Your task to perform on an android device: uninstall "ColorNote Notepad Notes" Image 0: 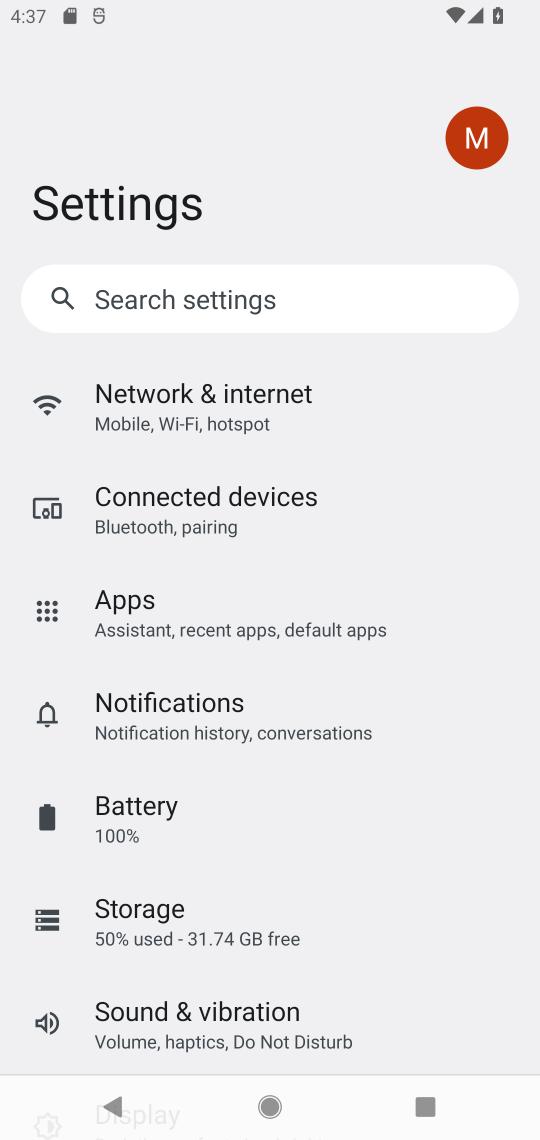
Step 0: press home button
Your task to perform on an android device: uninstall "ColorNote Notepad Notes" Image 1: 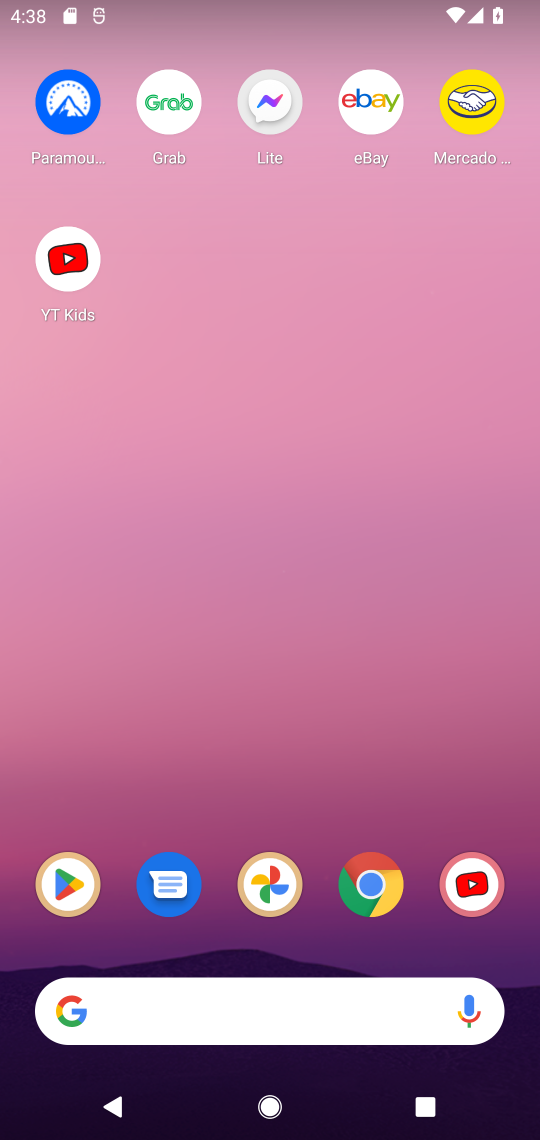
Step 1: click (69, 899)
Your task to perform on an android device: uninstall "ColorNote Notepad Notes" Image 2: 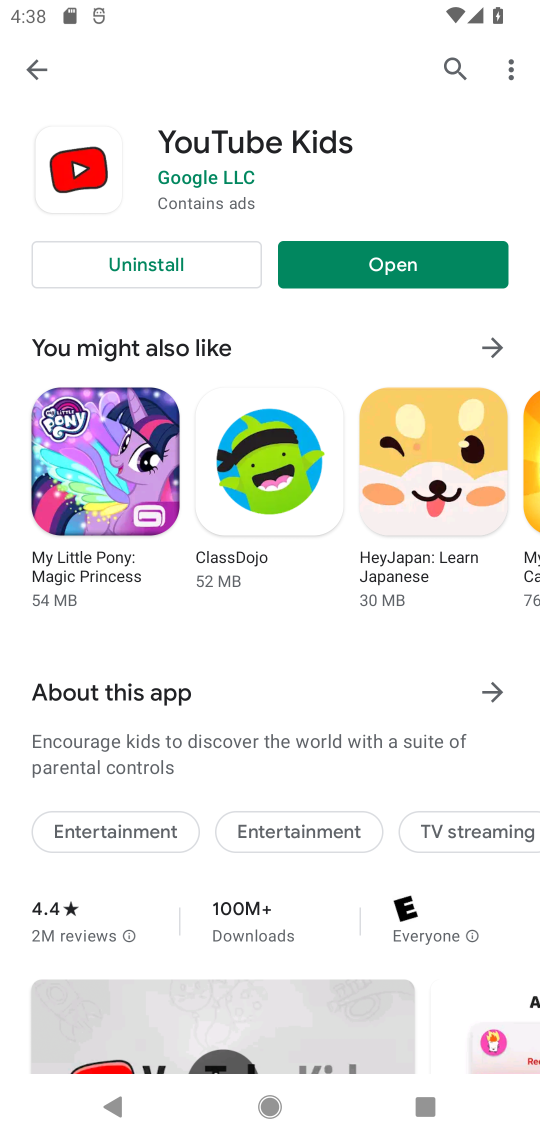
Step 2: click (439, 53)
Your task to perform on an android device: uninstall "ColorNote Notepad Notes" Image 3: 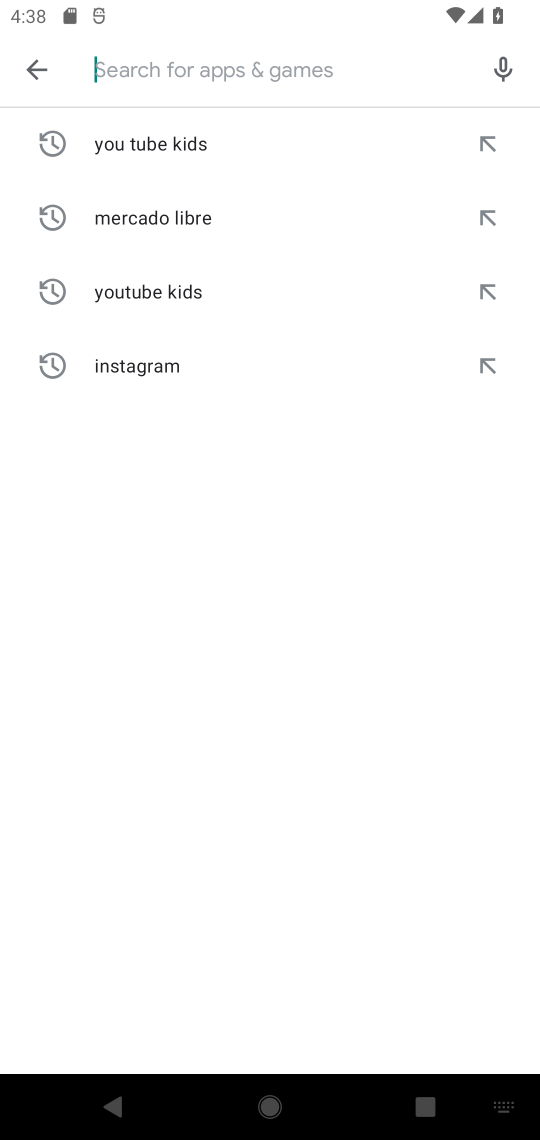
Step 3: type "ColorNote Notepad Notes"
Your task to perform on an android device: uninstall "ColorNote Notepad Notes" Image 4: 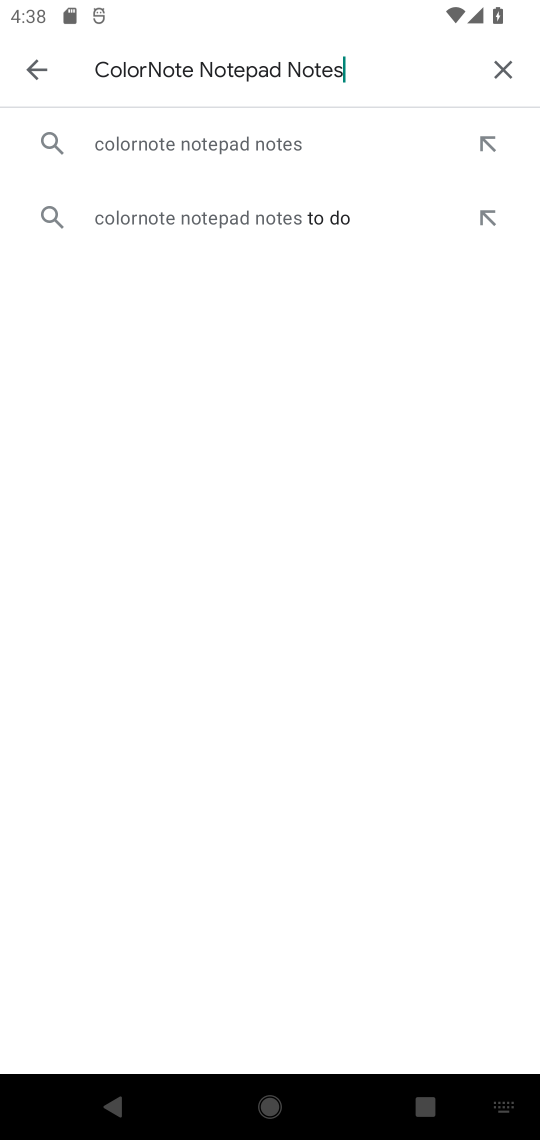
Step 4: click (426, 137)
Your task to perform on an android device: uninstall "ColorNote Notepad Notes" Image 5: 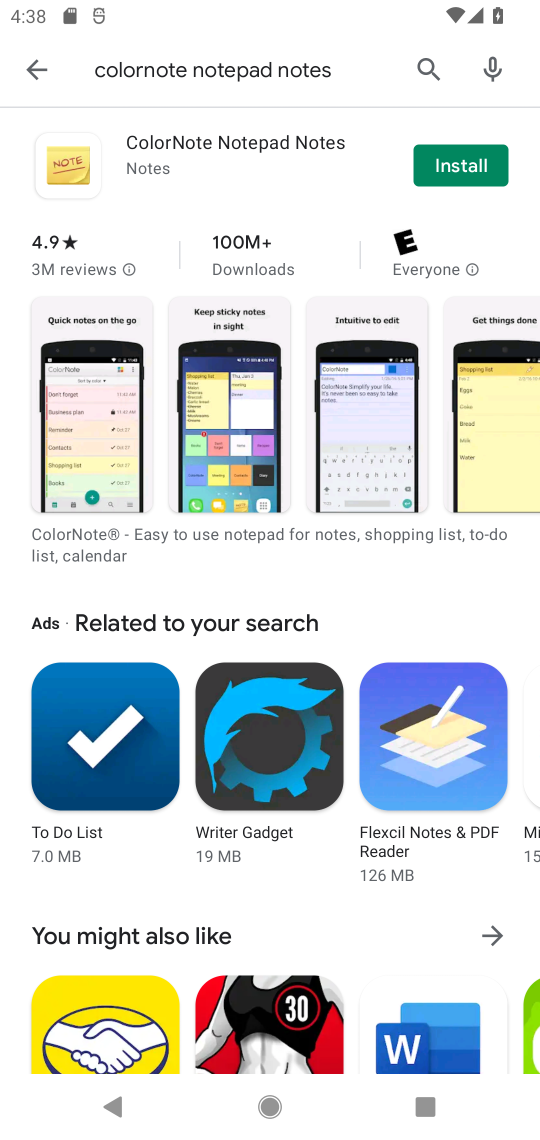
Step 5: task complete